Your task to perform on an android device: remove spam from my inbox in the gmail app Image 0: 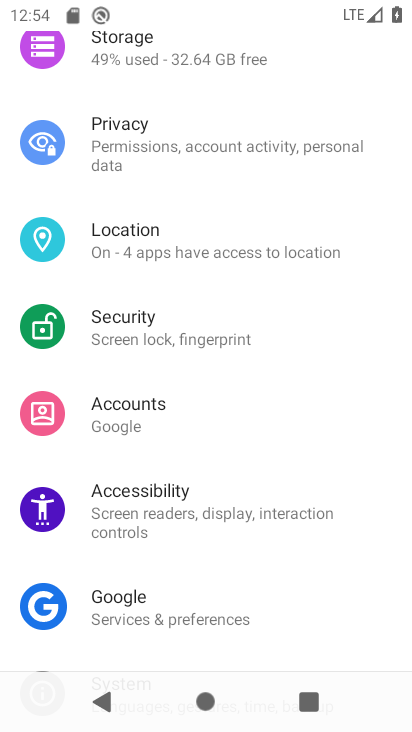
Step 0: press home button
Your task to perform on an android device: remove spam from my inbox in the gmail app Image 1: 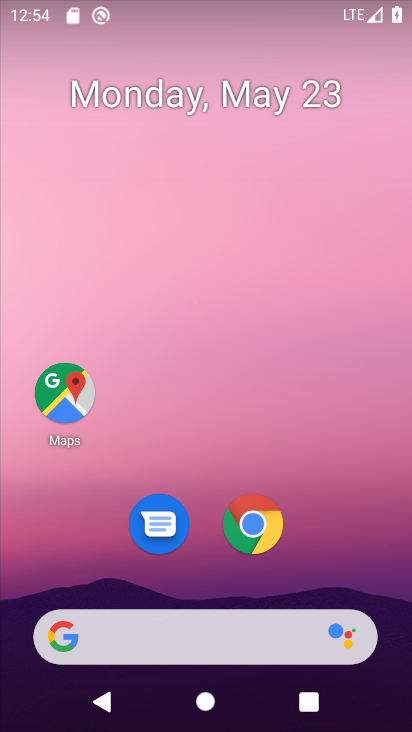
Step 1: drag from (223, 468) to (224, 20)
Your task to perform on an android device: remove spam from my inbox in the gmail app Image 2: 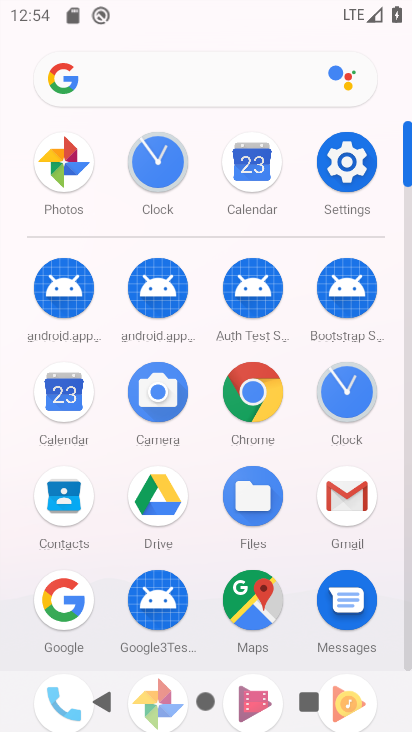
Step 2: click (341, 490)
Your task to perform on an android device: remove spam from my inbox in the gmail app Image 3: 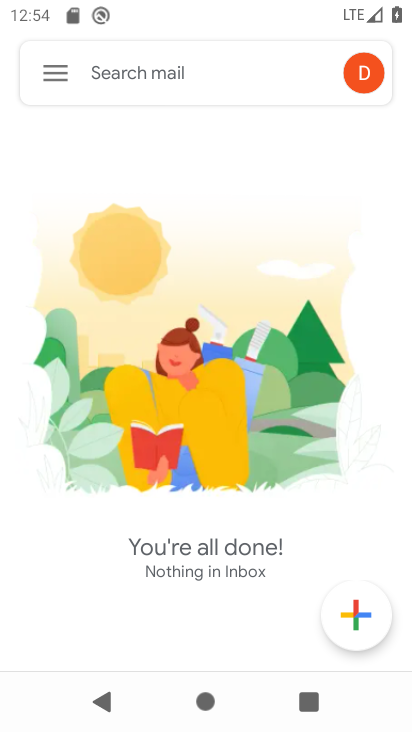
Step 3: click (57, 63)
Your task to perform on an android device: remove spam from my inbox in the gmail app Image 4: 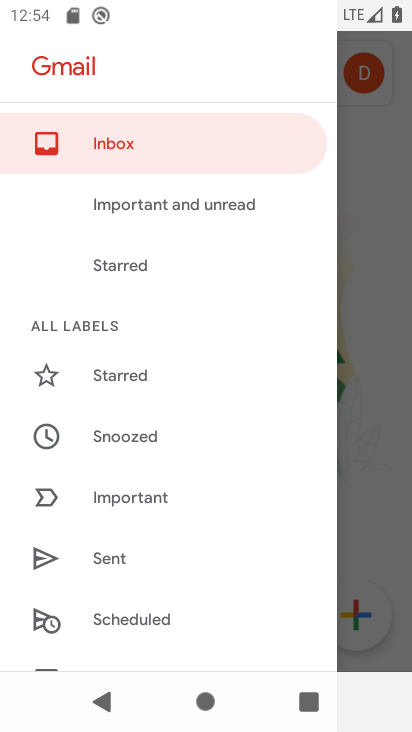
Step 4: drag from (159, 530) to (193, 210)
Your task to perform on an android device: remove spam from my inbox in the gmail app Image 5: 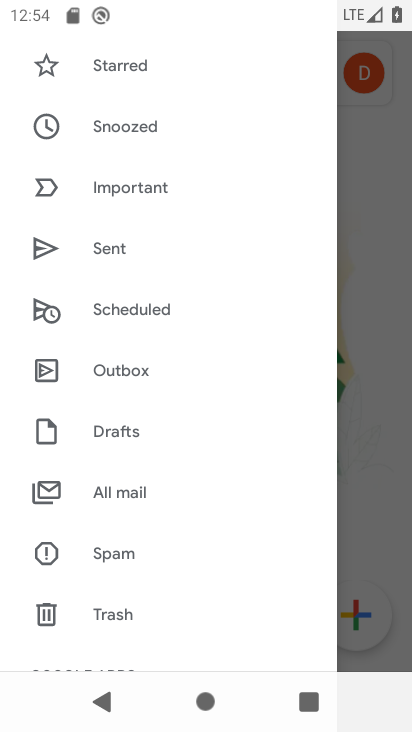
Step 5: click (126, 551)
Your task to perform on an android device: remove spam from my inbox in the gmail app Image 6: 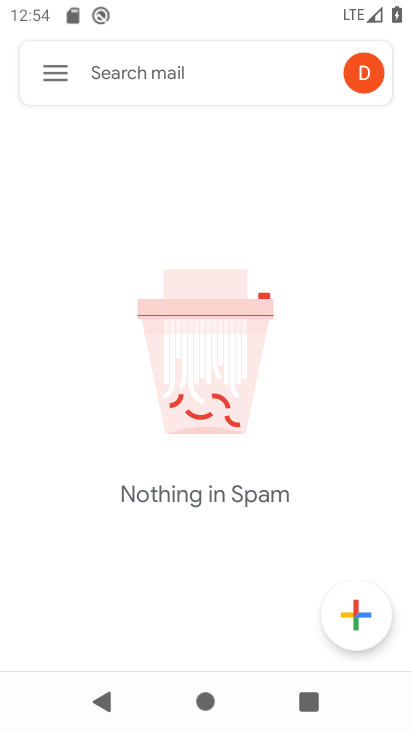
Step 6: task complete